Your task to perform on an android device: allow notifications from all sites in the chrome app Image 0: 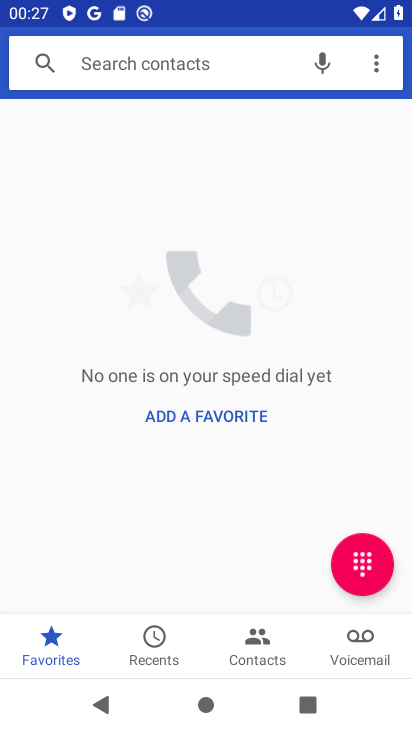
Step 0: press home button
Your task to perform on an android device: allow notifications from all sites in the chrome app Image 1: 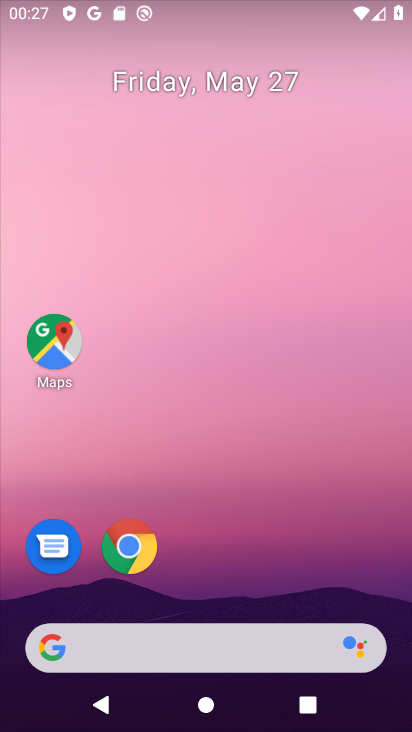
Step 1: drag from (337, 589) to (235, 105)
Your task to perform on an android device: allow notifications from all sites in the chrome app Image 2: 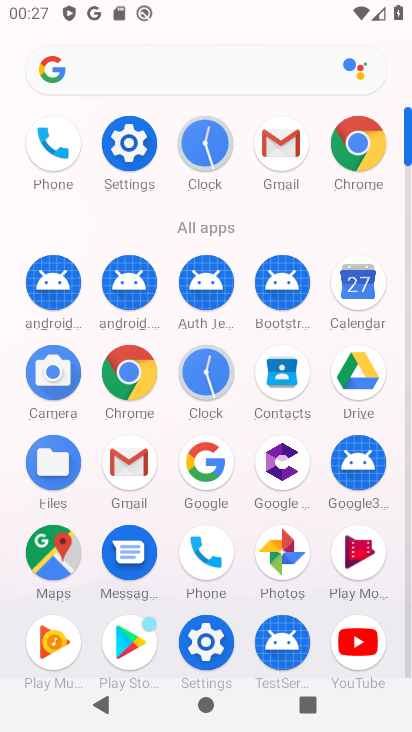
Step 2: click (116, 388)
Your task to perform on an android device: allow notifications from all sites in the chrome app Image 3: 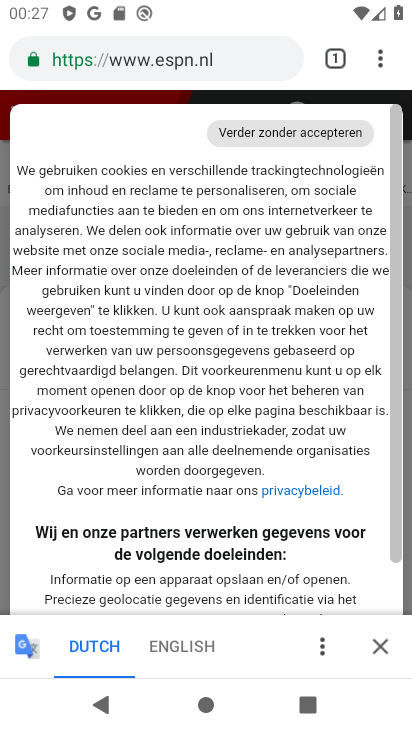
Step 3: drag from (374, 56) to (245, 574)
Your task to perform on an android device: allow notifications from all sites in the chrome app Image 4: 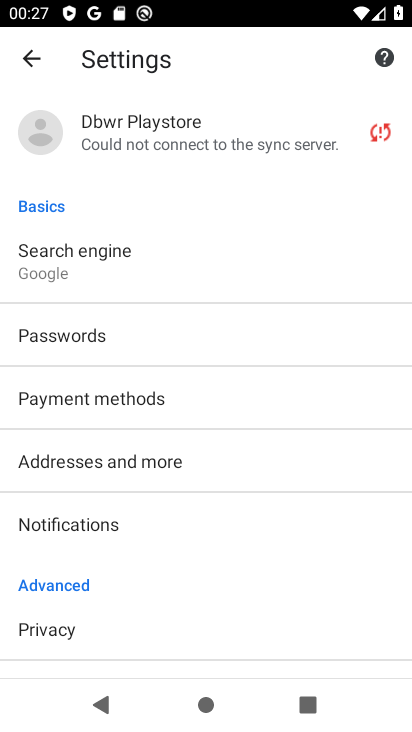
Step 4: drag from (242, 600) to (229, 293)
Your task to perform on an android device: allow notifications from all sites in the chrome app Image 5: 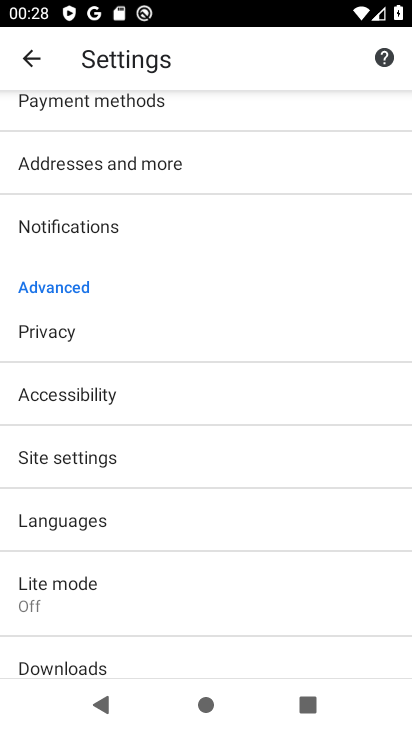
Step 5: click (105, 474)
Your task to perform on an android device: allow notifications from all sites in the chrome app Image 6: 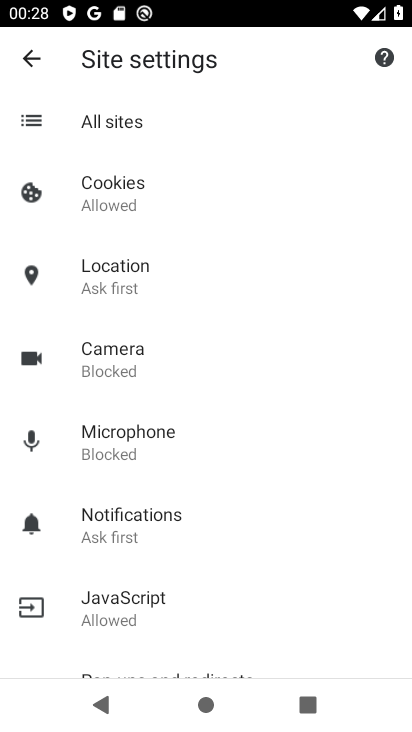
Step 6: drag from (234, 528) to (221, 193)
Your task to perform on an android device: allow notifications from all sites in the chrome app Image 7: 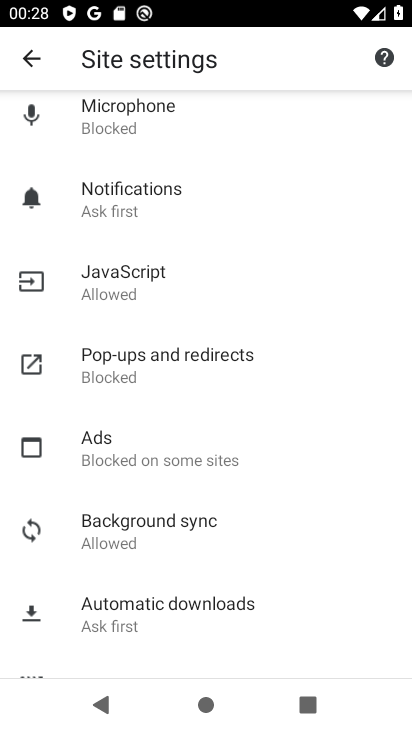
Step 7: drag from (221, 193) to (254, 591)
Your task to perform on an android device: allow notifications from all sites in the chrome app Image 8: 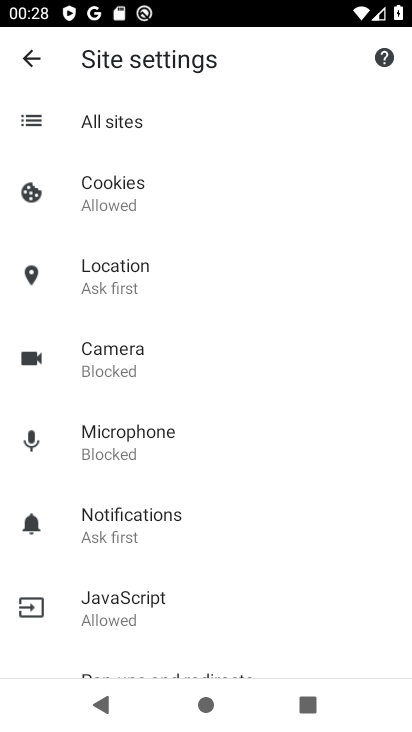
Step 8: click (148, 119)
Your task to perform on an android device: allow notifications from all sites in the chrome app Image 9: 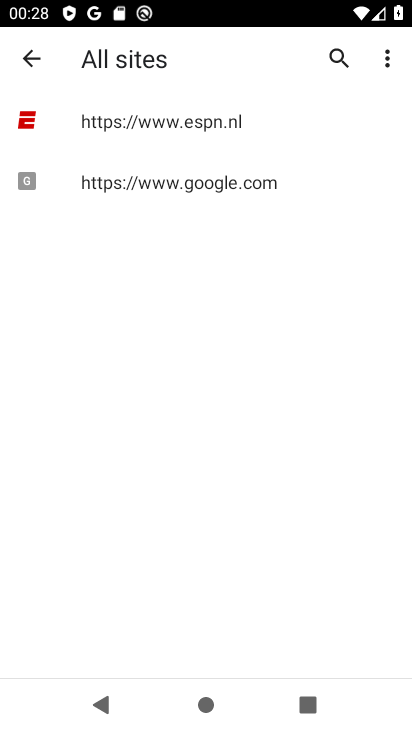
Step 9: task complete